Your task to perform on an android device: Go to location settings Image 0: 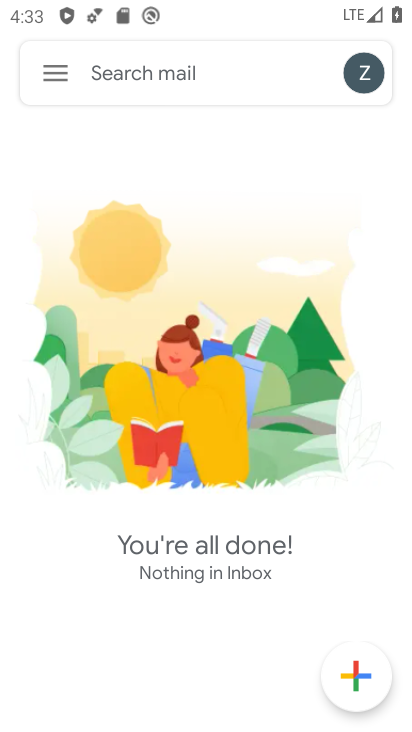
Step 0: press home button
Your task to perform on an android device: Go to location settings Image 1: 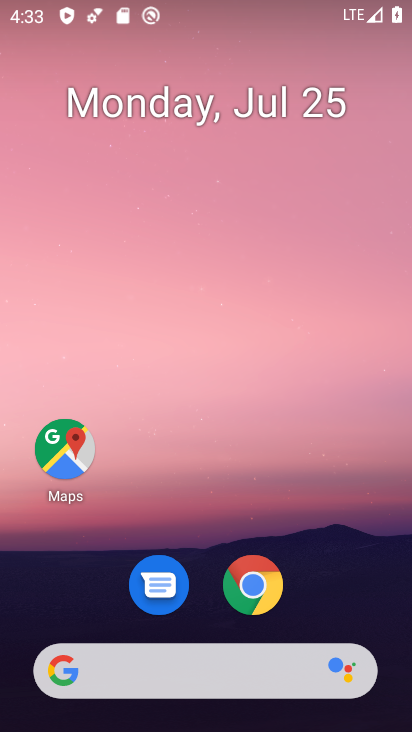
Step 1: drag from (219, 497) to (264, 1)
Your task to perform on an android device: Go to location settings Image 2: 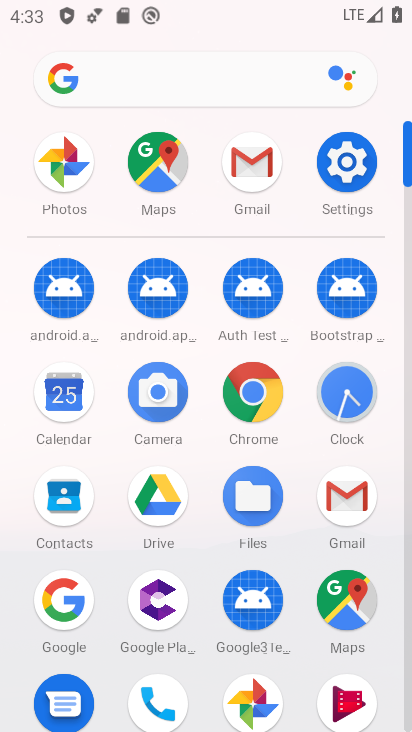
Step 2: click (354, 174)
Your task to perform on an android device: Go to location settings Image 3: 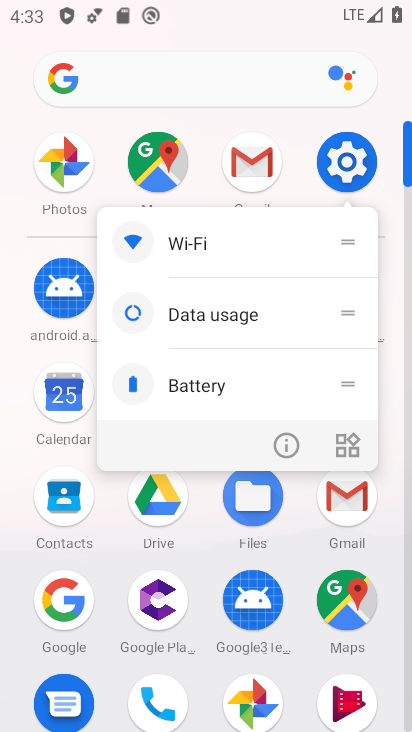
Step 3: click (352, 156)
Your task to perform on an android device: Go to location settings Image 4: 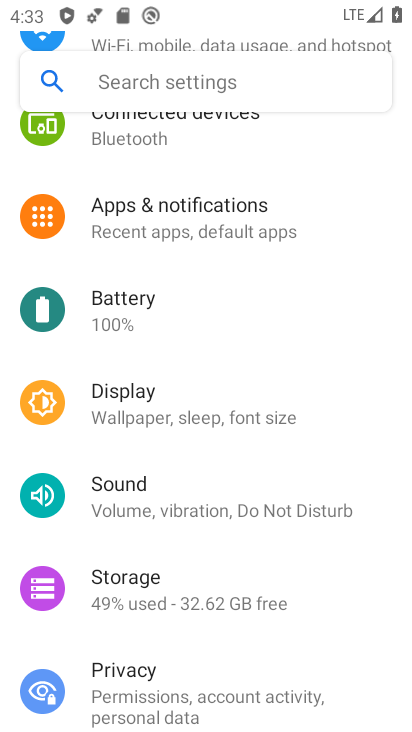
Step 4: drag from (217, 276) to (191, 572)
Your task to perform on an android device: Go to location settings Image 5: 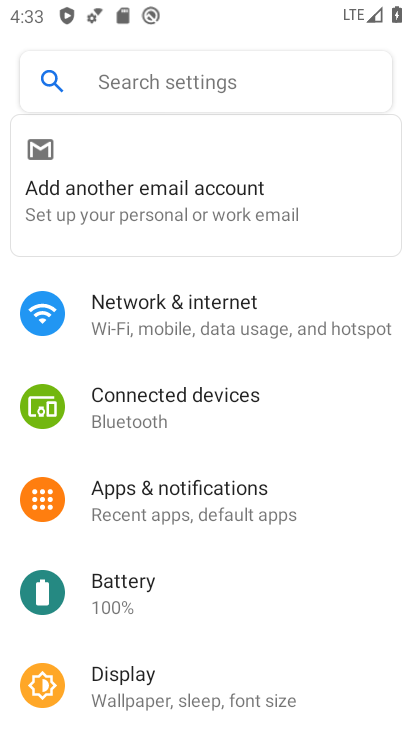
Step 5: drag from (191, 572) to (255, 30)
Your task to perform on an android device: Go to location settings Image 6: 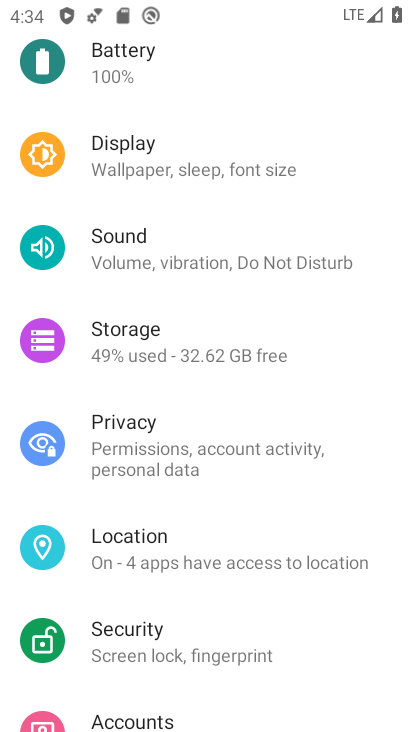
Step 6: click (191, 554)
Your task to perform on an android device: Go to location settings Image 7: 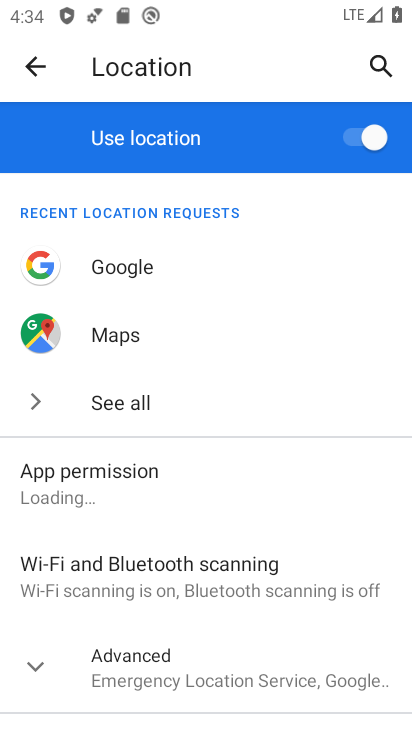
Step 7: task complete